Your task to perform on an android device: Do I have any events today? Image 0: 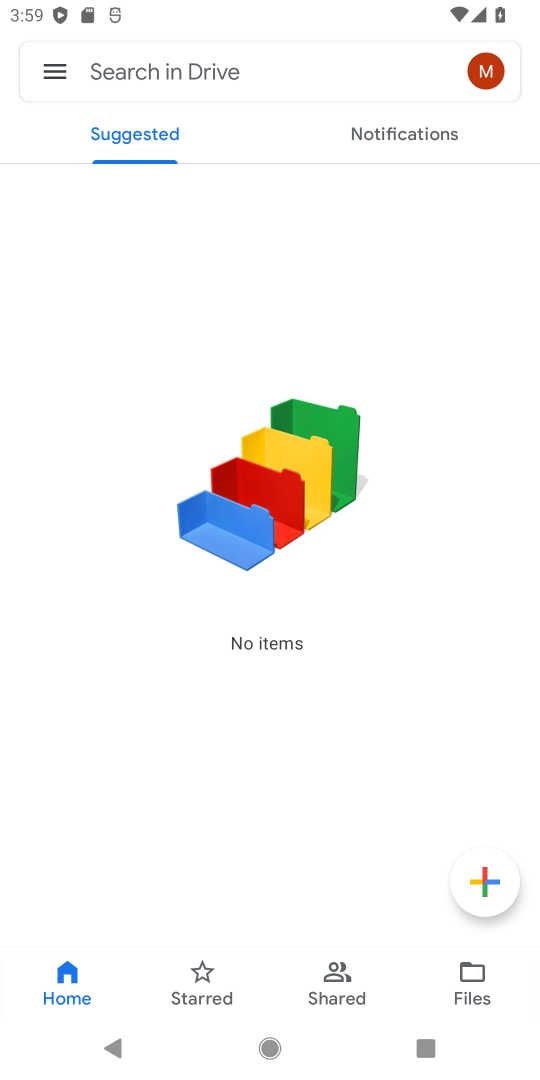
Step 0: press home button
Your task to perform on an android device: Do I have any events today? Image 1: 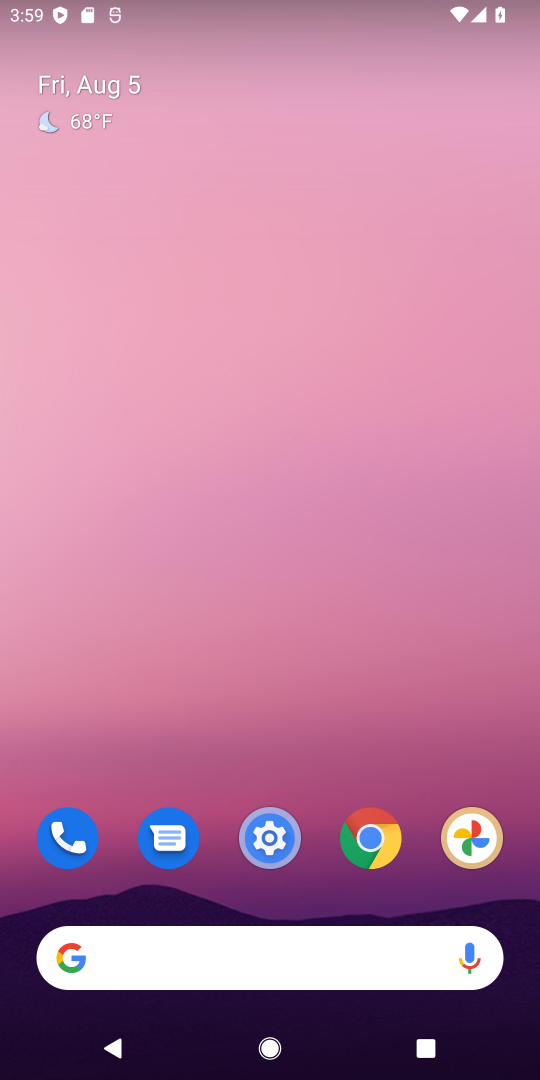
Step 1: drag from (268, 901) to (264, 95)
Your task to perform on an android device: Do I have any events today? Image 2: 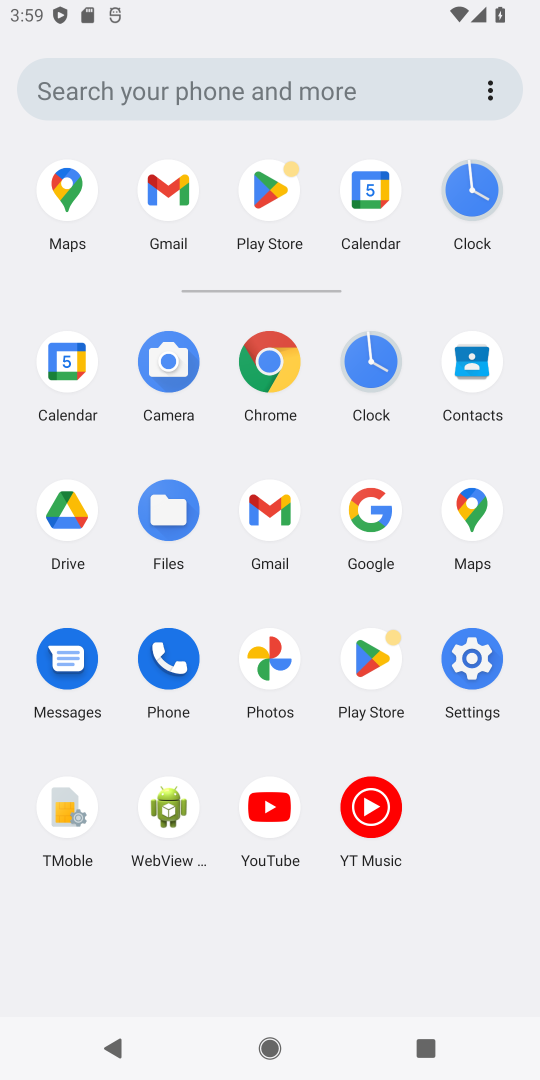
Step 2: click (58, 345)
Your task to perform on an android device: Do I have any events today? Image 3: 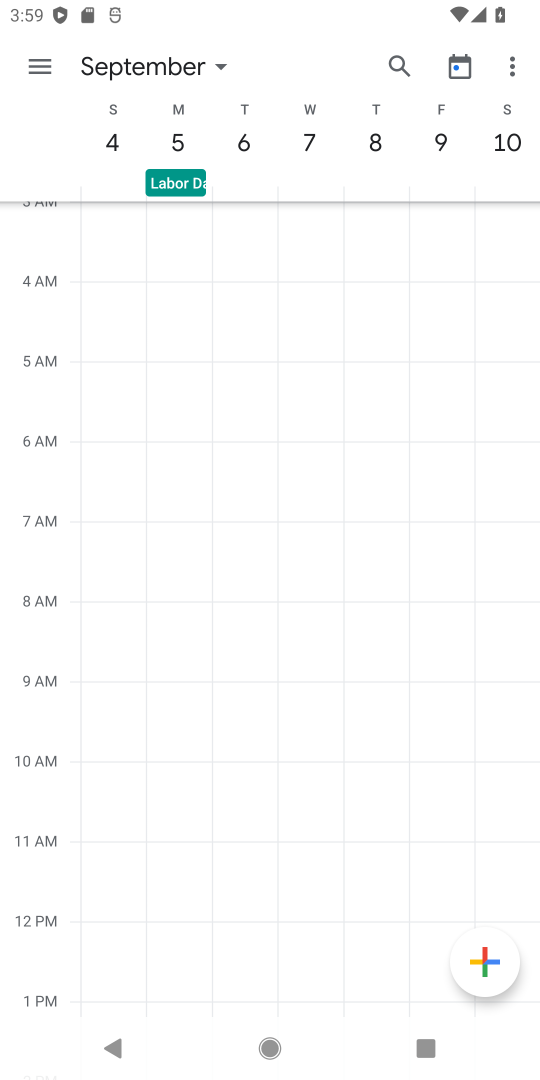
Step 3: drag from (106, 137) to (509, 176)
Your task to perform on an android device: Do I have any events today? Image 4: 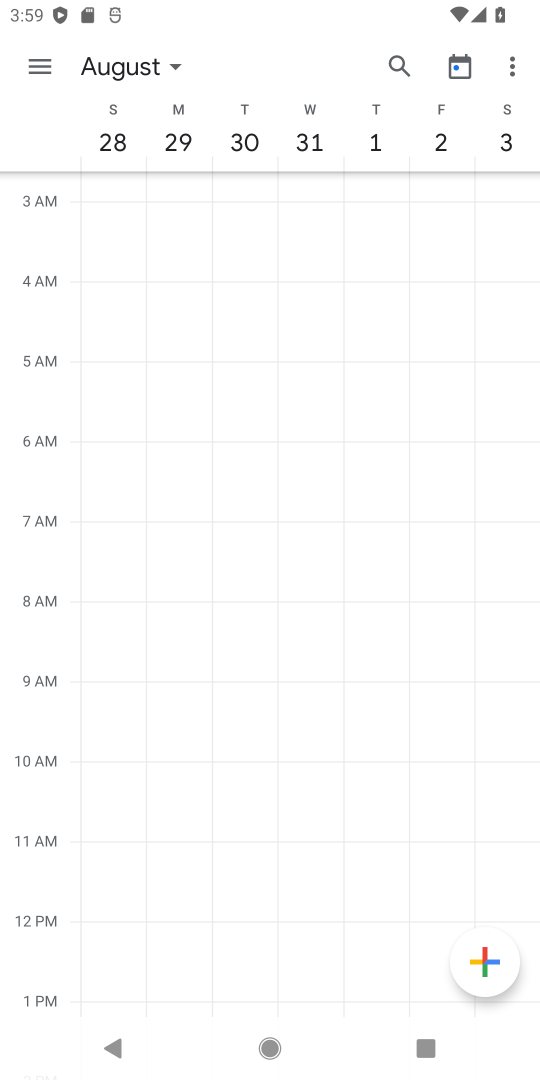
Step 4: drag from (93, 149) to (537, 174)
Your task to perform on an android device: Do I have any events today? Image 5: 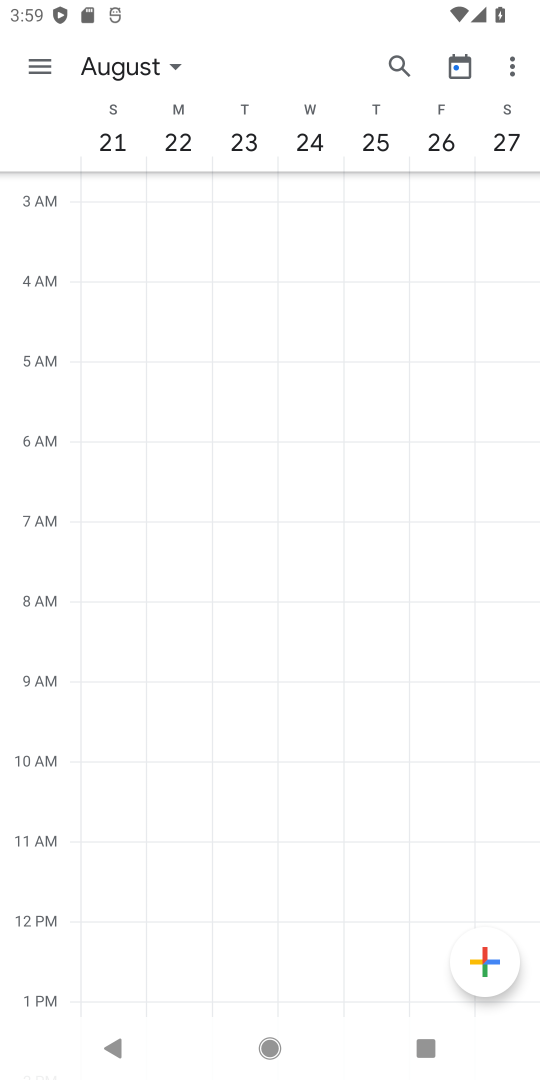
Step 5: drag from (121, 131) to (515, 175)
Your task to perform on an android device: Do I have any events today? Image 6: 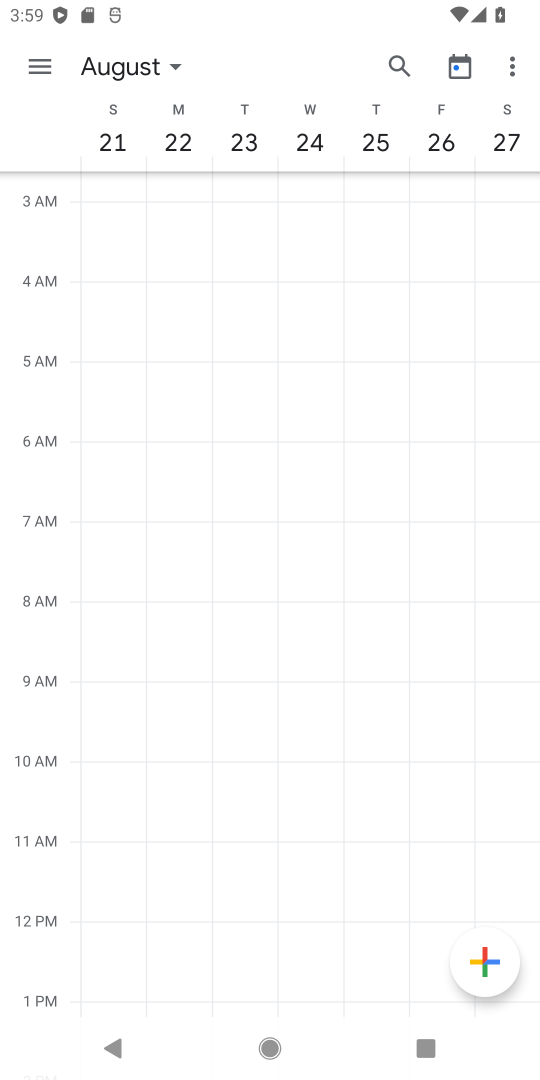
Step 6: drag from (77, 132) to (462, 189)
Your task to perform on an android device: Do I have any events today? Image 7: 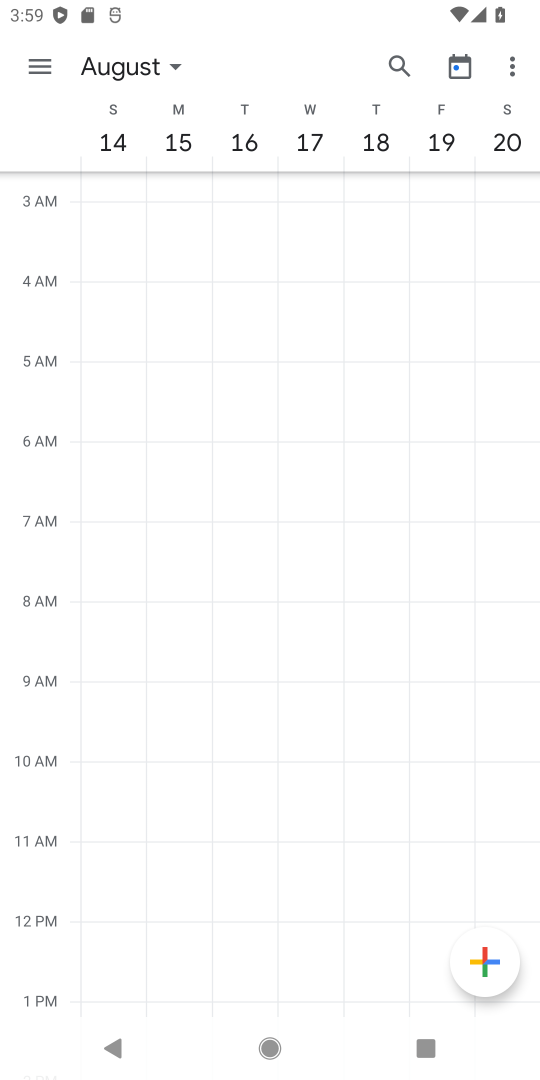
Step 7: drag from (62, 142) to (519, 164)
Your task to perform on an android device: Do I have any events today? Image 8: 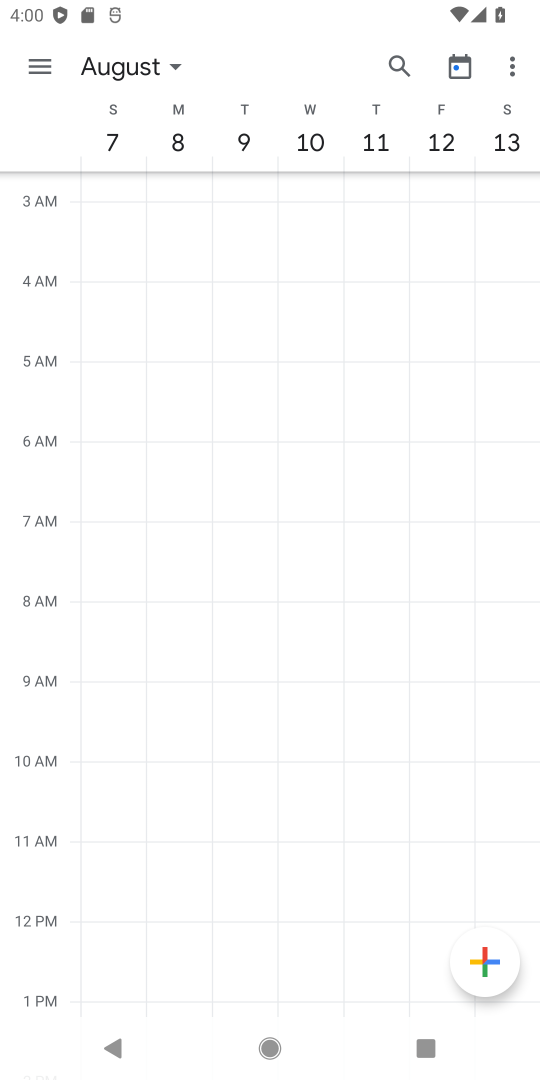
Step 8: drag from (115, 122) to (469, 125)
Your task to perform on an android device: Do I have any events today? Image 9: 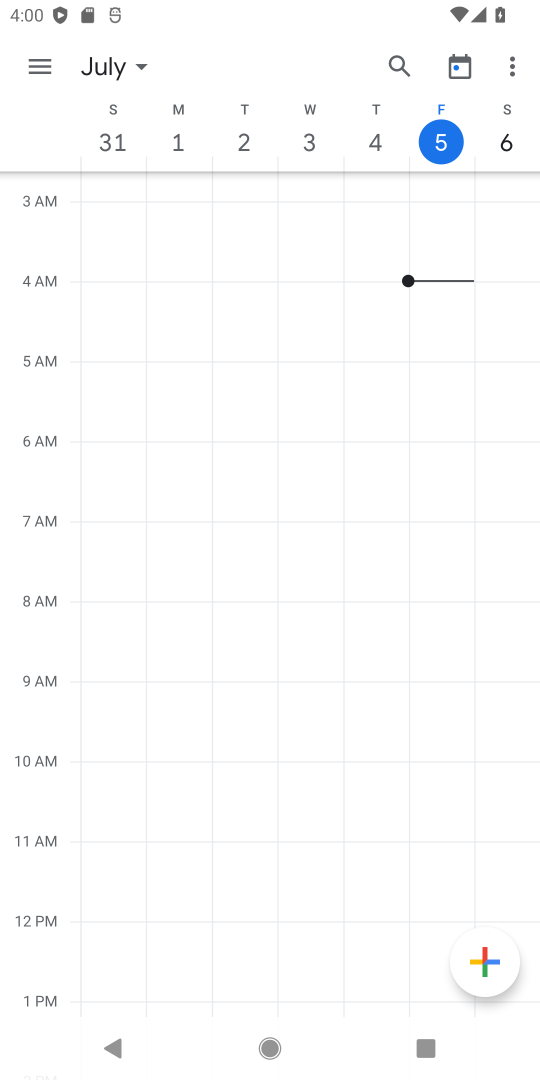
Step 9: click (316, 130)
Your task to perform on an android device: Do I have any events today? Image 10: 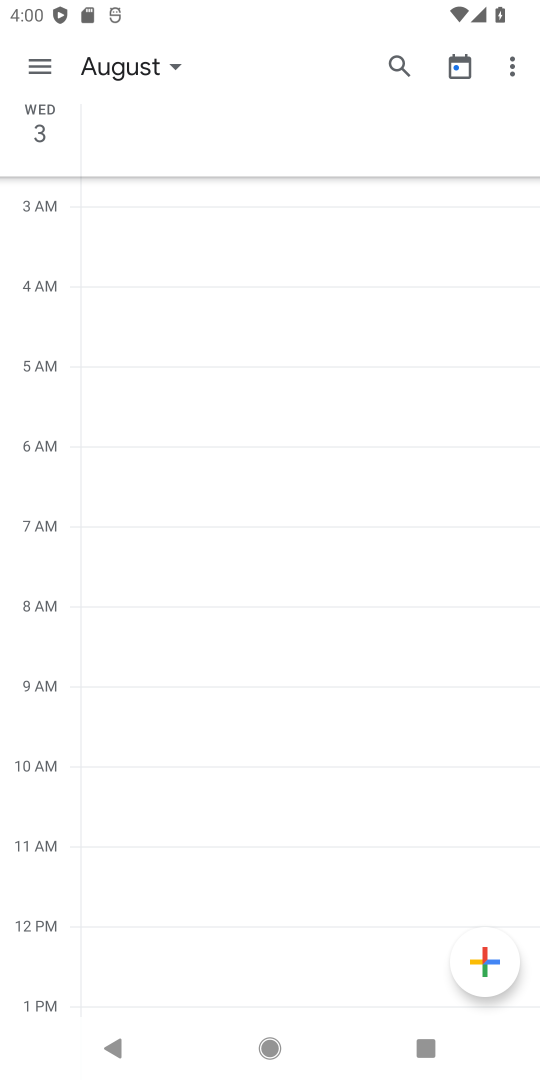
Step 10: click (438, 140)
Your task to perform on an android device: Do I have any events today? Image 11: 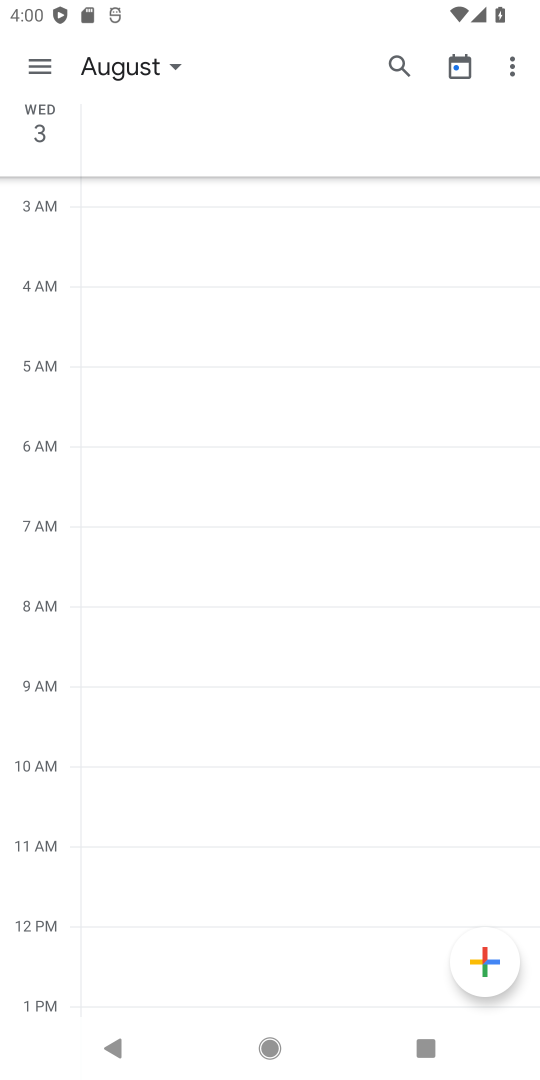
Step 11: click (37, 74)
Your task to perform on an android device: Do I have any events today? Image 12: 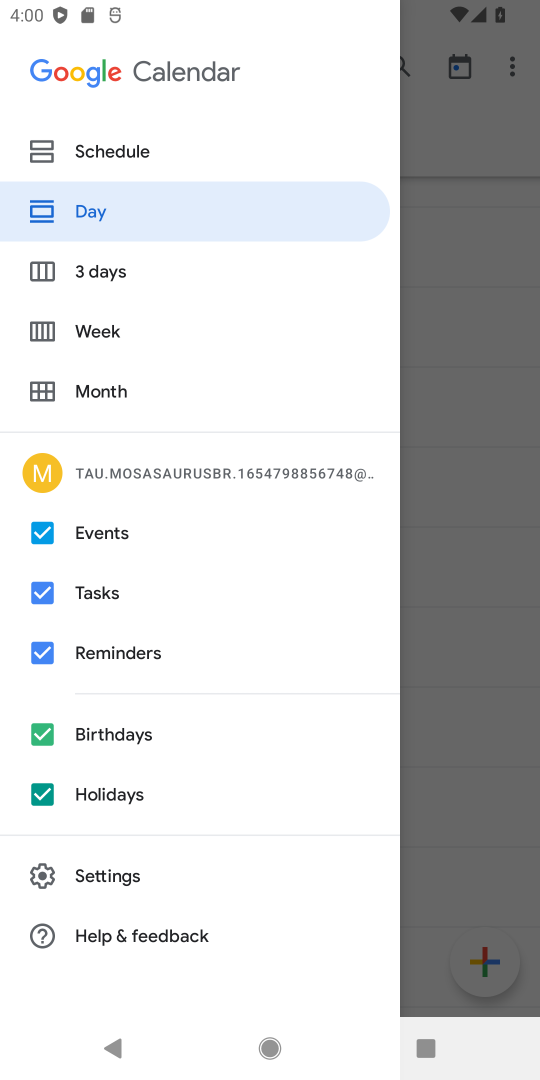
Step 12: click (124, 380)
Your task to perform on an android device: Do I have any events today? Image 13: 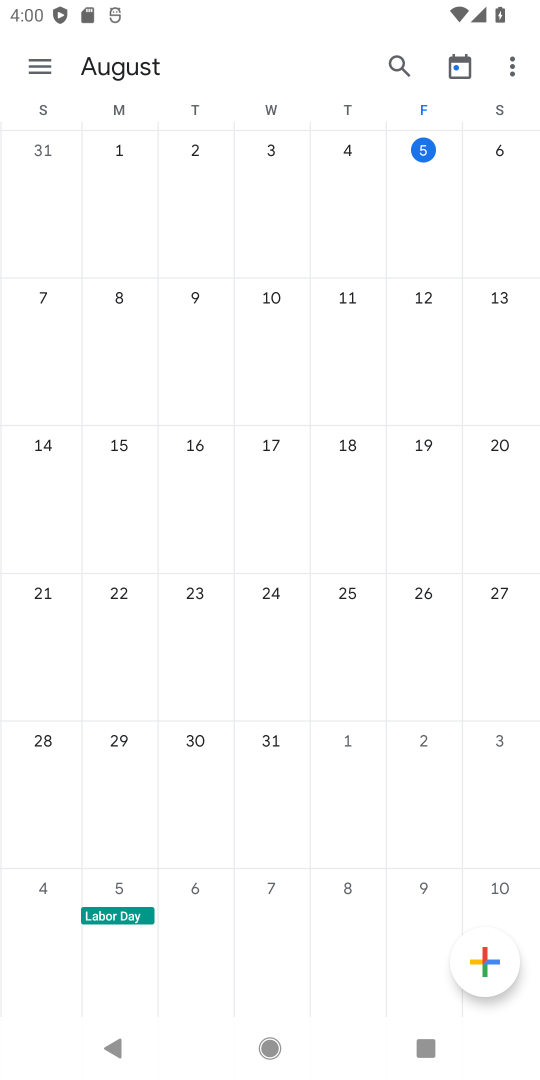
Step 13: click (417, 171)
Your task to perform on an android device: Do I have any events today? Image 14: 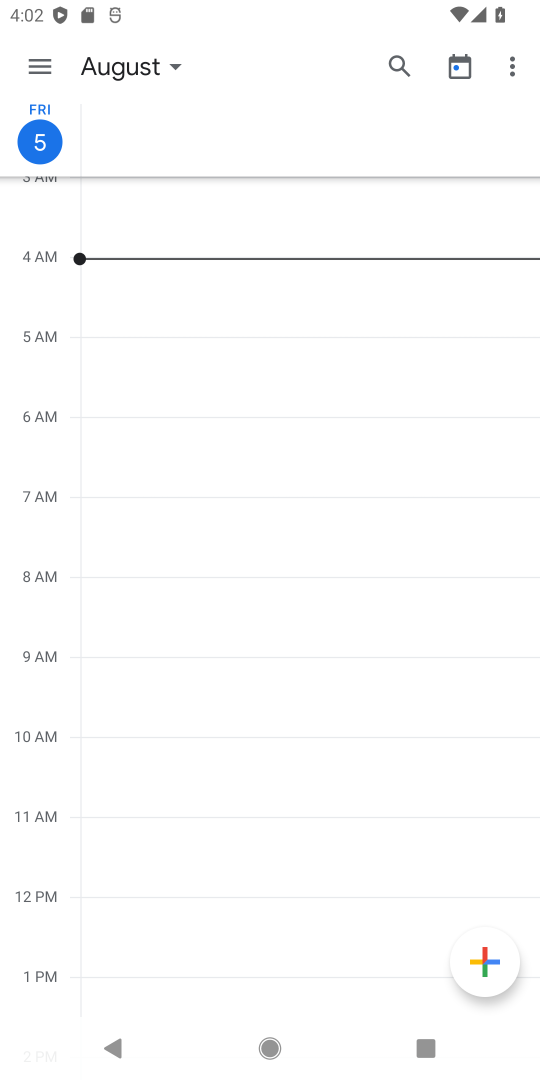
Step 14: task complete